Your task to perform on an android device: open chrome and create a bookmark for the current page Image 0: 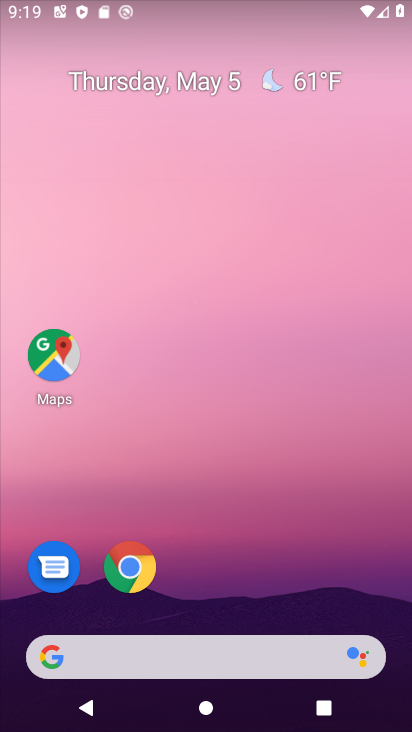
Step 0: click (132, 566)
Your task to perform on an android device: open chrome and create a bookmark for the current page Image 1: 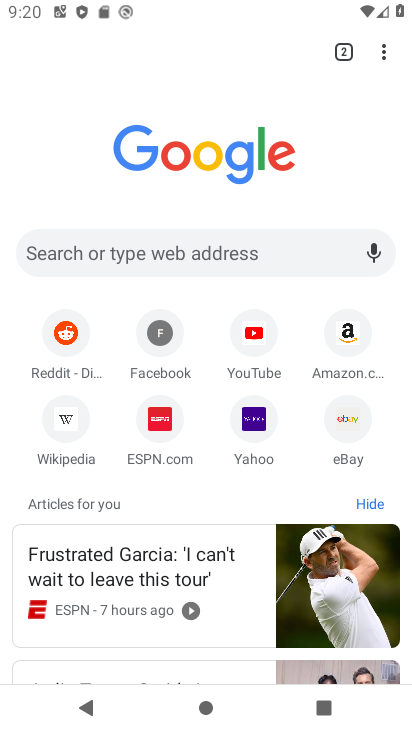
Step 1: click (388, 55)
Your task to perform on an android device: open chrome and create a bookmark for the current page Image 2: 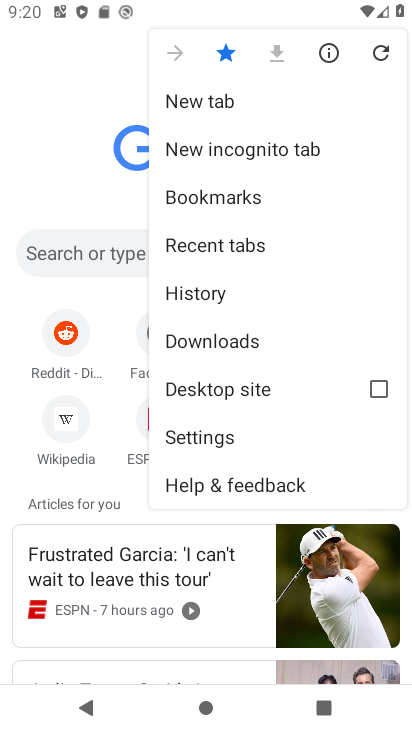
Step 2: task complete